Your task to perform on an android device: turn off improve location accuracy Image 0: 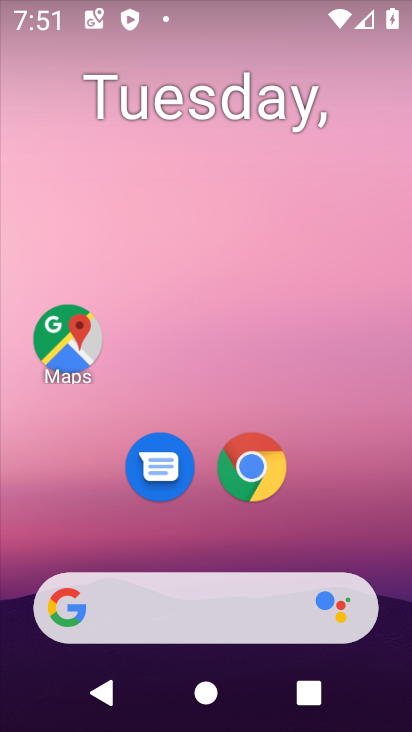
Step 0: drag from (398, 599) to (325, 109)
Your task to perform on an android device: turn off improve location accuracy Image 1: 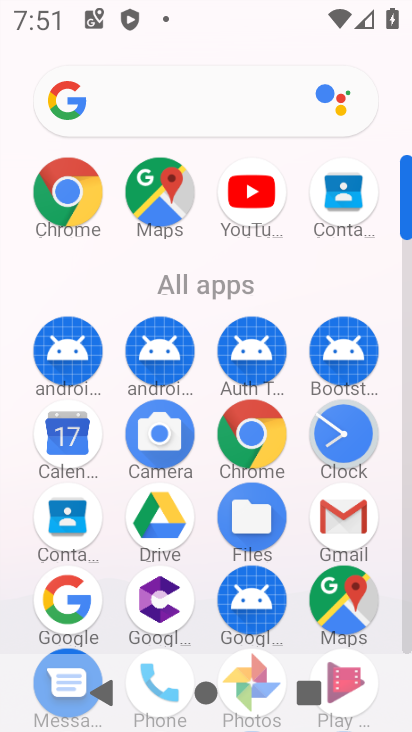
Step 1: click (405, 638)
Your task to perform on an android device: turn off improve location accuracy Image 2: 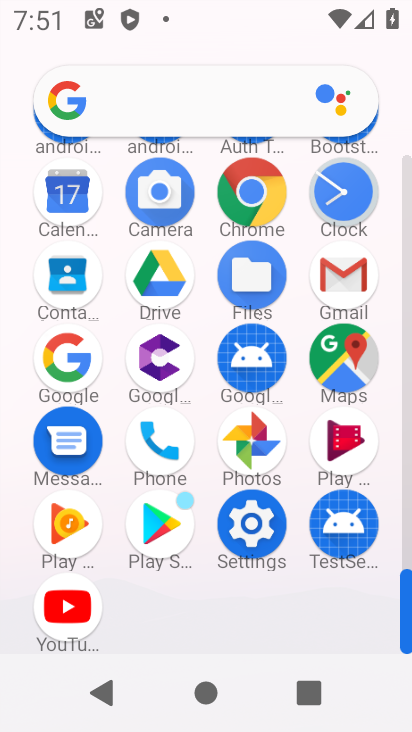
Step 2: click (261, 536)
Your task to perform on an android device: turn off improve location accuracy Image 3: 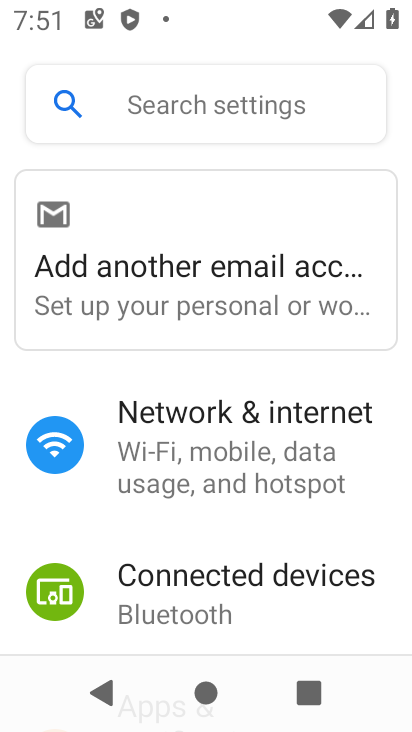
Step 3: drag from (396, 630) to (366, 256)
Your task to perform on an android device: turn off improve location accuracy Image 4: 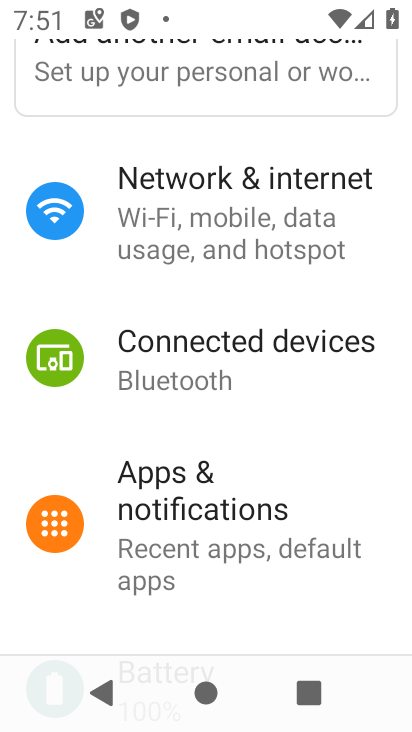
Step 4: drag from (400, 494) to (347, 203)
Your task to perform on an android device: turn off improve location accuracy Image 5: 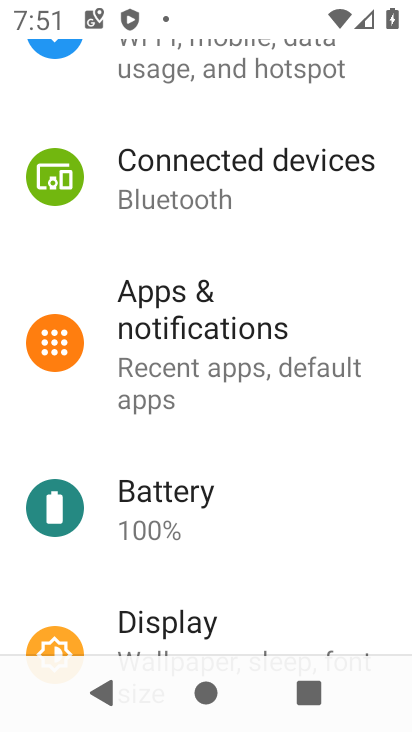
Step 5: drag from (397, 585) to (359, 206)
Your task to perform on an android device: turn off improve location accuracy Image 6: 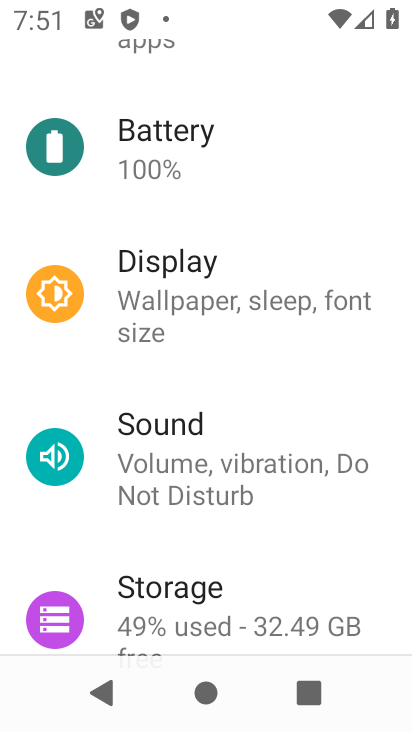
Step 6: drag from (324, 553) to (275, 255)
Your task to perform on an android device: turn off improve location accuracy Image 7: 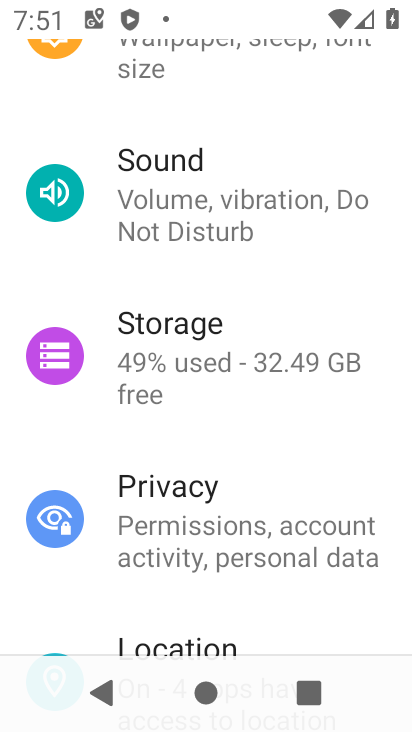
Step 7: drag from (290, 620) to (263, 143)
Your task to perform on an android device: turn off improve location accuracy Image 8: 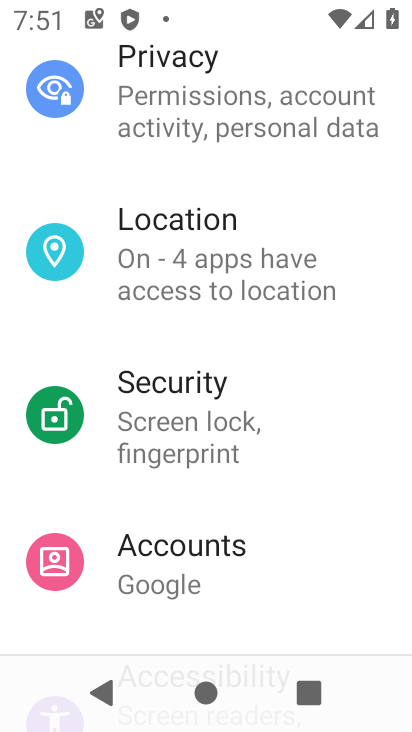
Step 8: click (263, 213)
Your task to perform on an android device: turn off improve location accuracy Image 9: 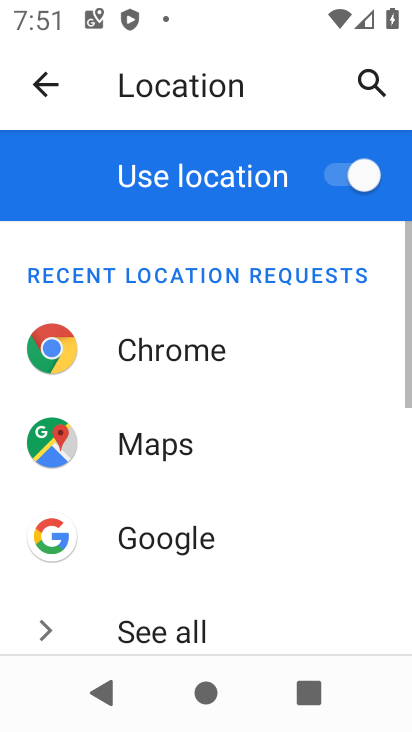
Step 9: drag from (340, 512) to (293, 157)
Your task to perform on an android device: turn off improve location accuracy Image 10: 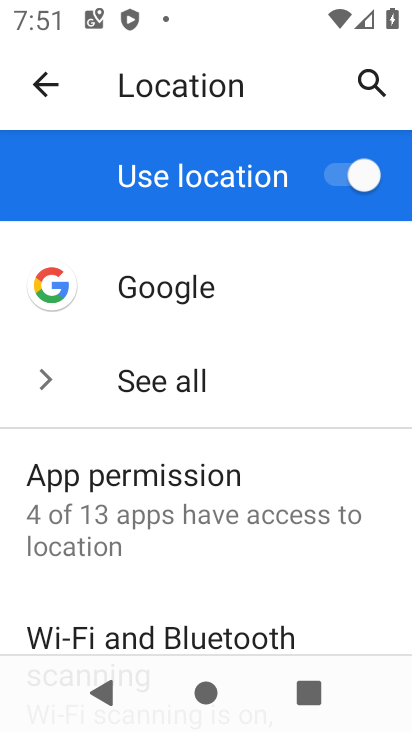
Step 10: drag from (307, 607) to (274, 160)
Your task to perform on an android device: turn off improve location accuracy Image 11: 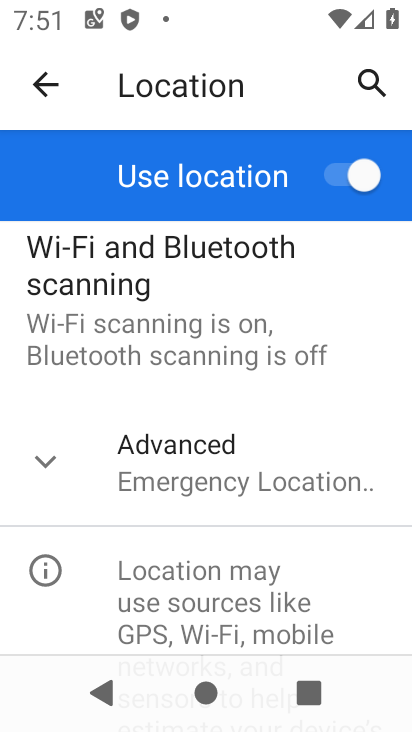
Step 11: click (273, 460)
Your task to perform on an android device: turn off improve location accuracy Image 12: 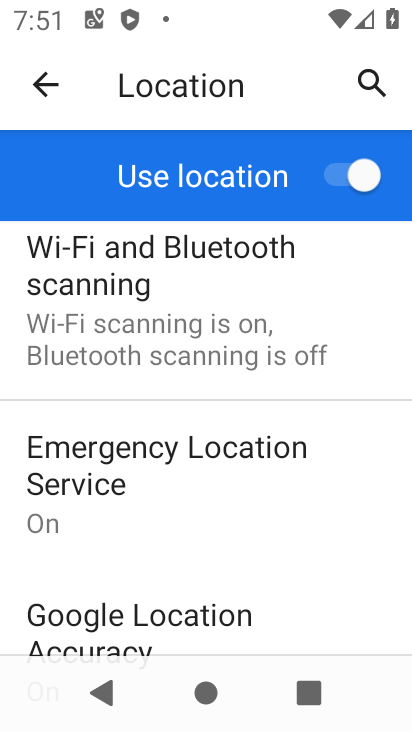
Step 12: drag from (298, 569) to (320, 229)
Your task to perform on an android device: turn off improve location accuracy Image 13: 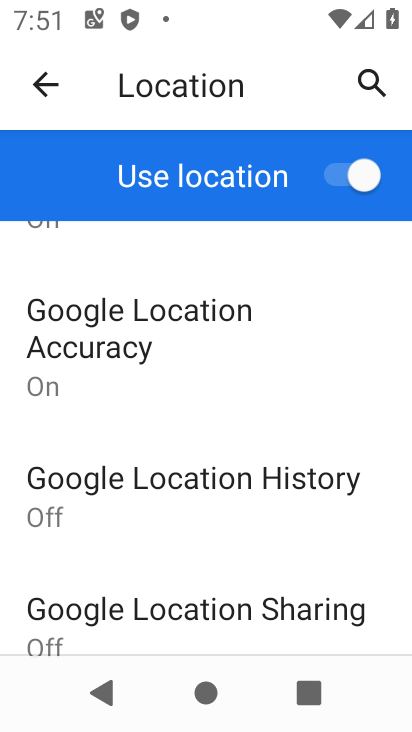
Step 13: click (289, 316)
Your task to perform on an android device: turn off improve location accuracy Image 14: 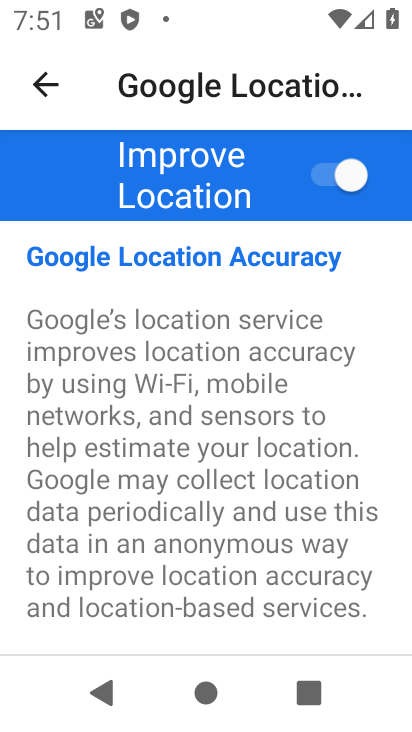
Step 14: click (324, 166)
Your task to perform on an android device: turn off improve location accuracy Image 15: 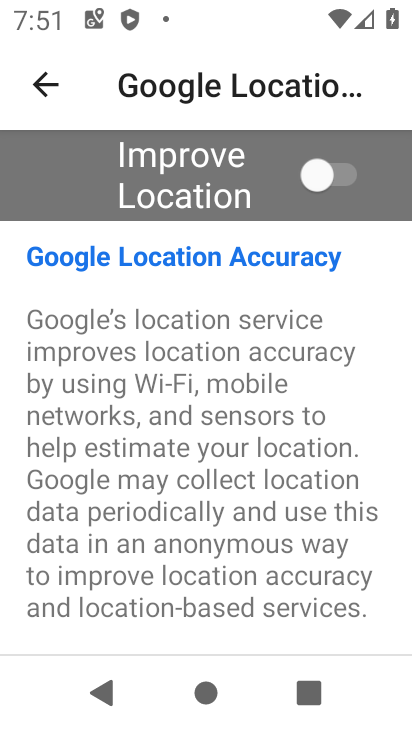
Step 15: task complete